Your task to perform on an android device: toggle wifi Image 0: 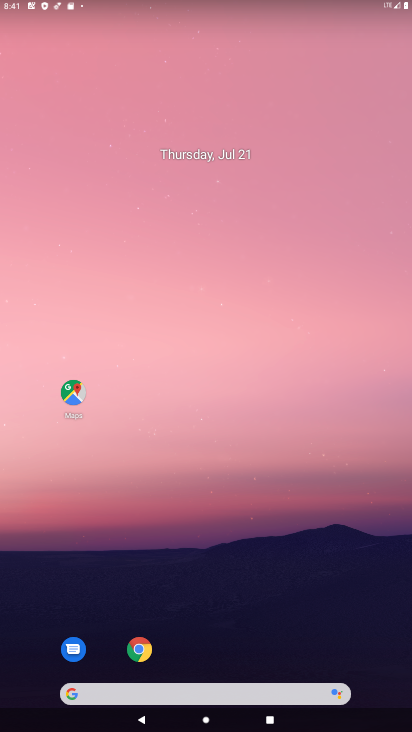
Step 0: drag from (217, 650) to (228, 105)
Your task to perform on an android device: toggle wifi Image 1: 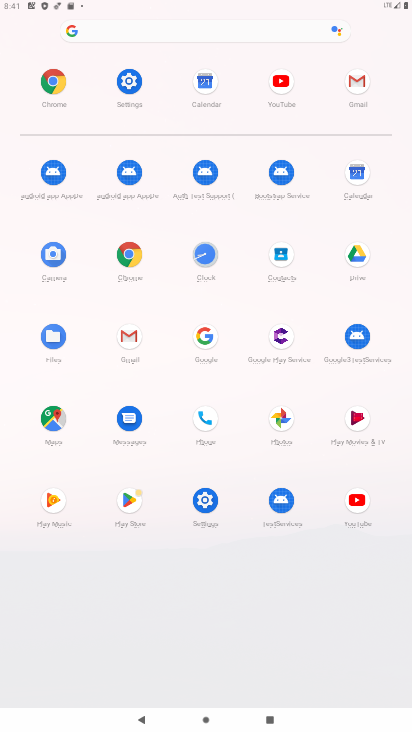
Step 1: click (131, 87)
Your task to perform on an android device: toggle wifi Image 2: 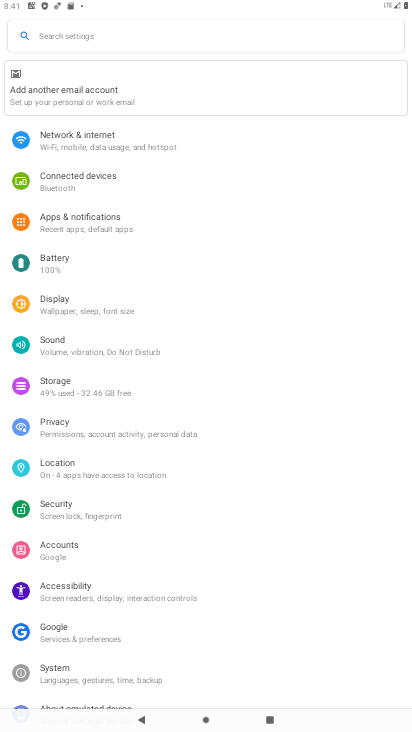
Step 2: click (119, 144)
Your task to perform on an android device: toggle wifi Image 3: 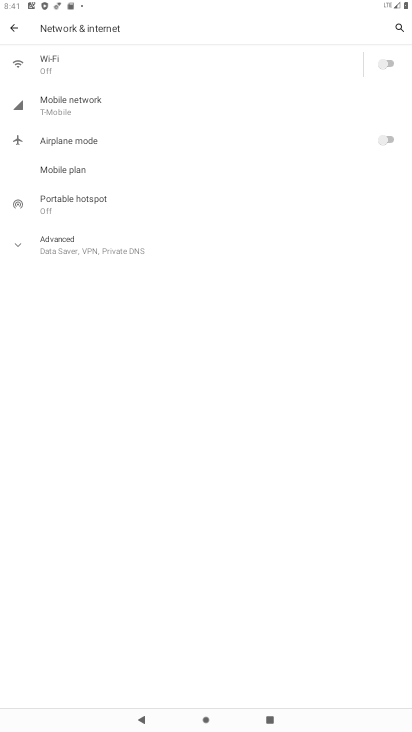
Step 3: click (399, 61)
Your task to perform on an android device: toggle wifi Image 4: 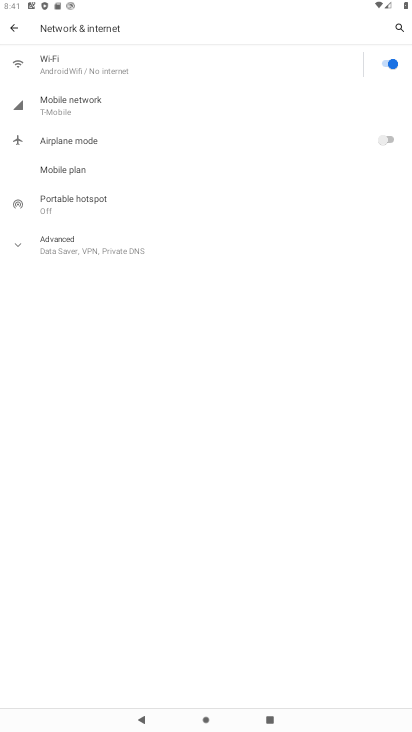
Step 4: task complete